Your task to perform on an android device: Open Youtube and go to the subscriptions tab Image 0: 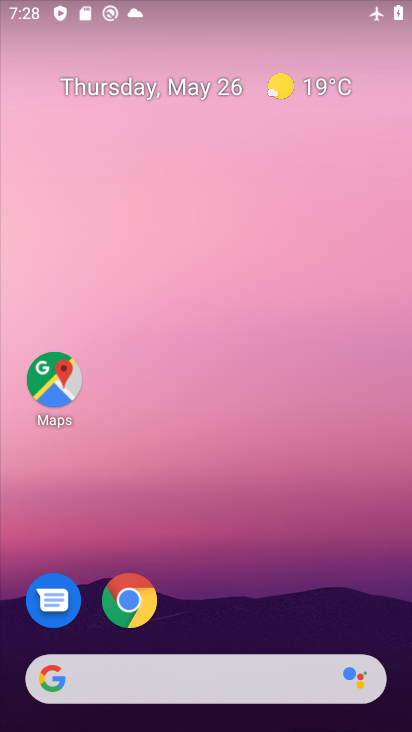
Step 0: press home button
Your task to perform on an android device: Open Youtube and go to the subscriptions tab Image 1: 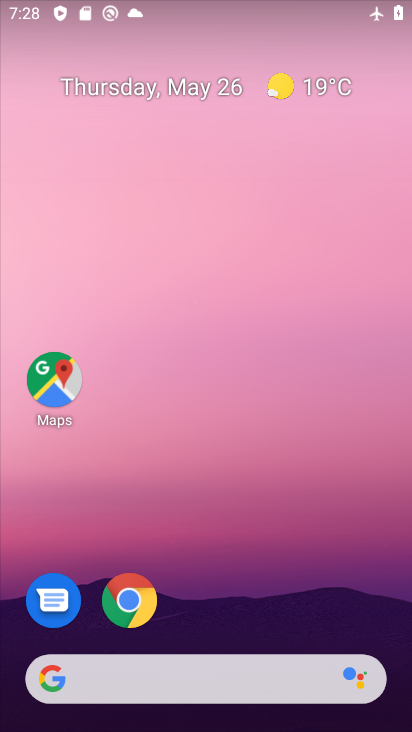
Step 1: drag from (281, 625) to (278, 169)
Your task to perform on an android device: Open Youtube and go to the subscriptions tab Image 2: 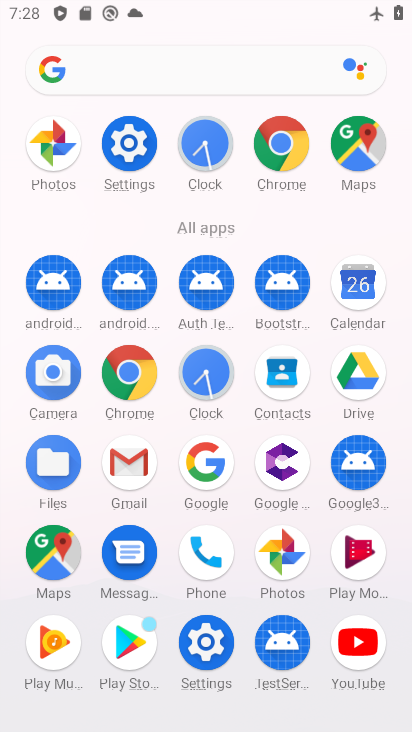
Step 2: click (346, 648)
Your task to perform on an android device: Open Youtube and go to the subscriptions tab Image 3: 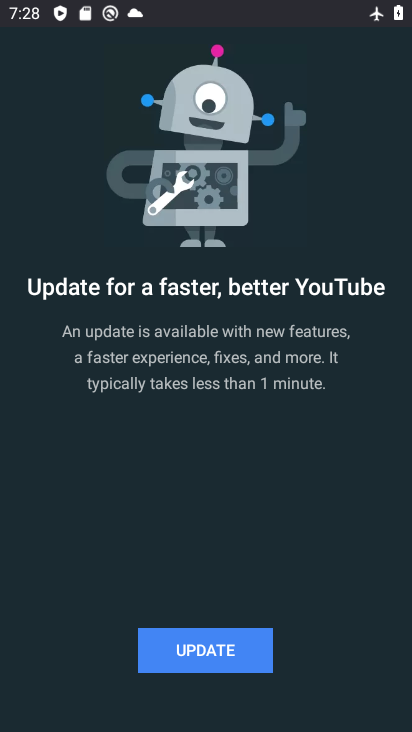
Step 3: click (242, 658)
Your task to perform on an android device: Open Youtube and go to the subscriptions tab Image 4: 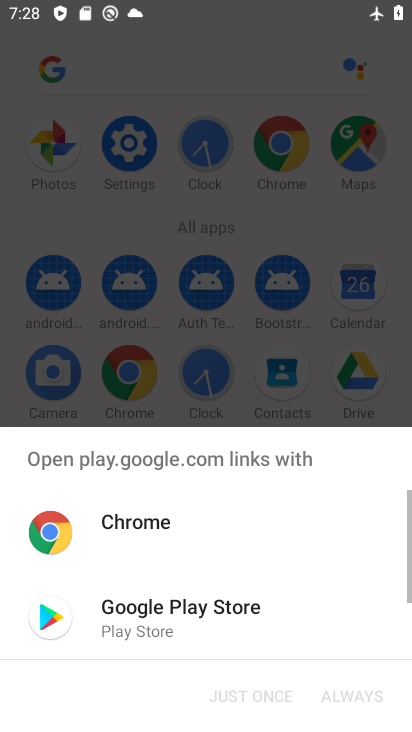
Step 4: click (201, 615)
Your task to perform on an android device: Open Youtube and go to the subscriptions tab Image 5: 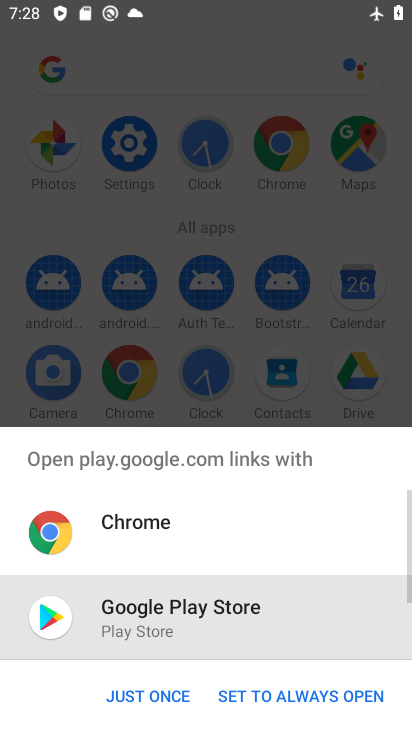
Step 5: click (133, 695)
Your task to perform on an android device: Open Youtube and go to the subscriptions tab Image 6: 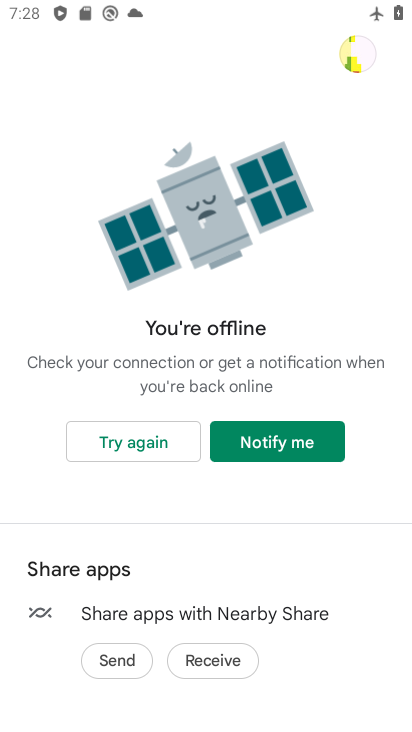
Step 6: click (148, 445)
Your task to perform on an android device: Open Youtube and go to the subscriptions tab Image 7: 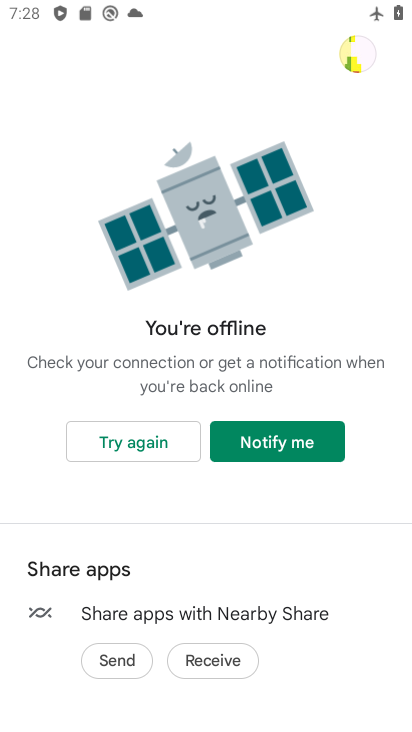
Step 7: click (148, 445)
Your task to perform on an android device: Open Youtube and go to the subscriptions tab Image 8: 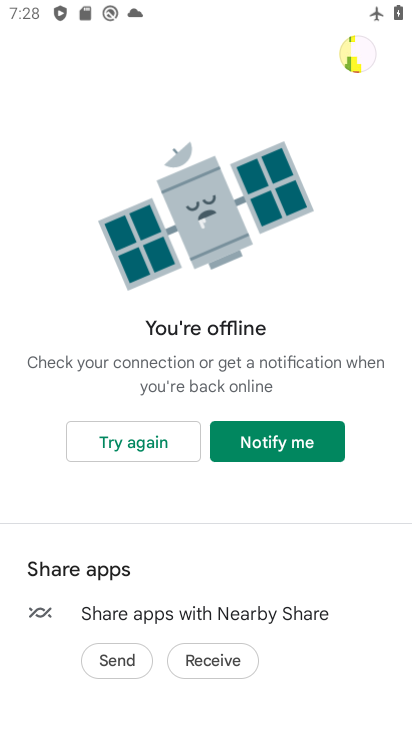
Step 8: click (152, 442)
Your task to perform on an android device: Open Youtube and go to the subscriptions tab Image 9: 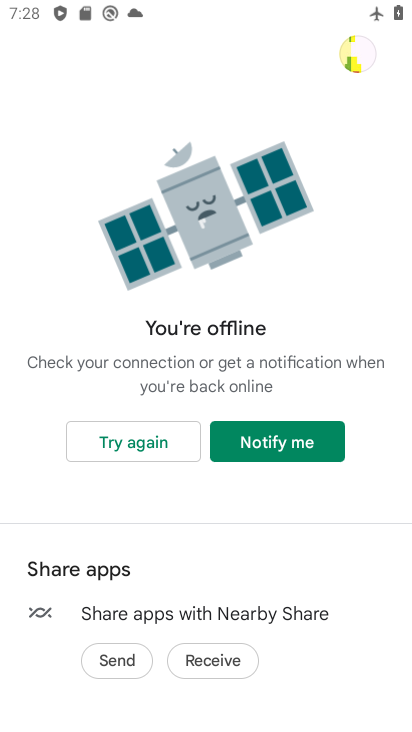
Step 9: drag from (167, 40) to (170, 277)
Your task to perform on an android device: Open Youtube and go to the subscriptions tab Image 10: 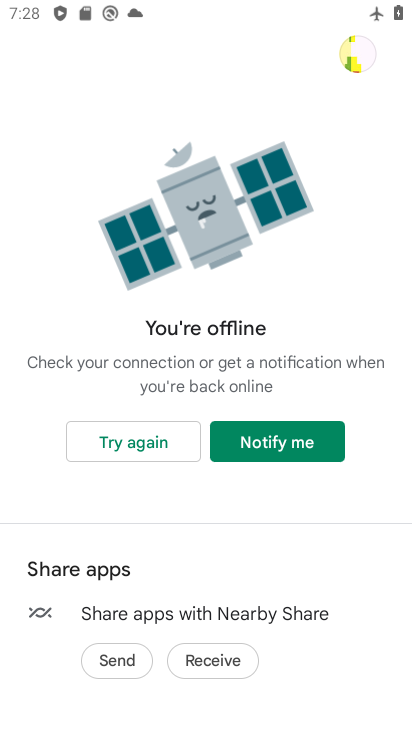
Step 10: drag from (231, 22) to (179, 311)
Your task to perform on an android device: Open Youtube and go to the subscriptions tab Image 11: 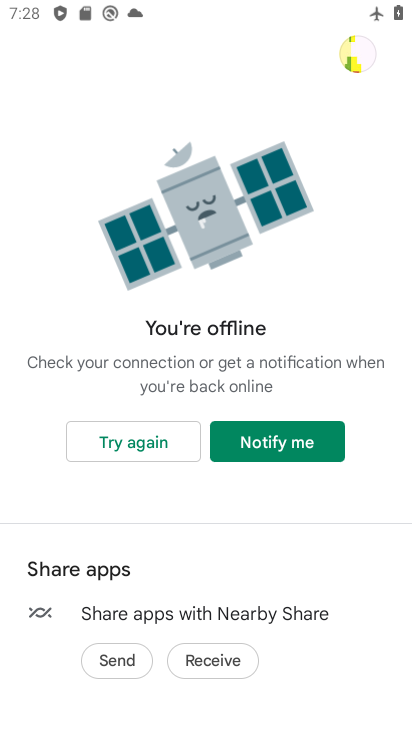
Step 11: drag from (216, 14) to (169, 394)
Your task to perform on an android device: Open Youtube and go to the subscriptions tab Image 12: 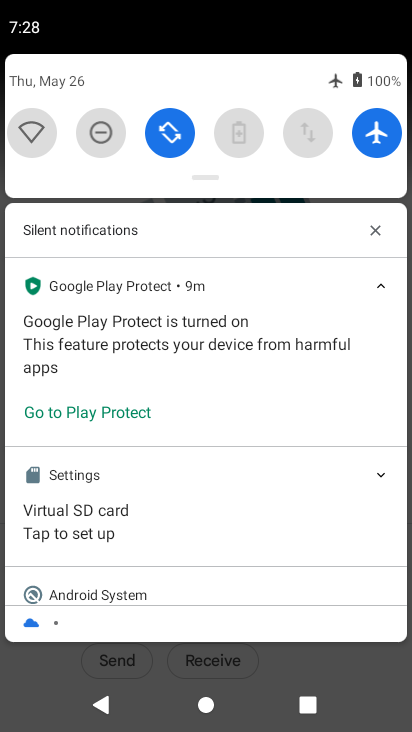
Step 12: click (31, 133)
Your task to perform on an android device: Open Youtube and go to the subscriptions tab Image 13: 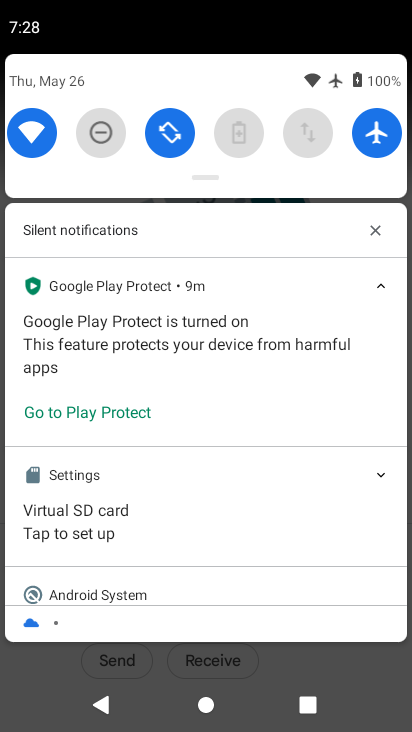
Step 13: drag from (239, 623) to (185, 36)
Your task to perform on an android device: Open Youtube and go to the subscriptions tab Image 14: 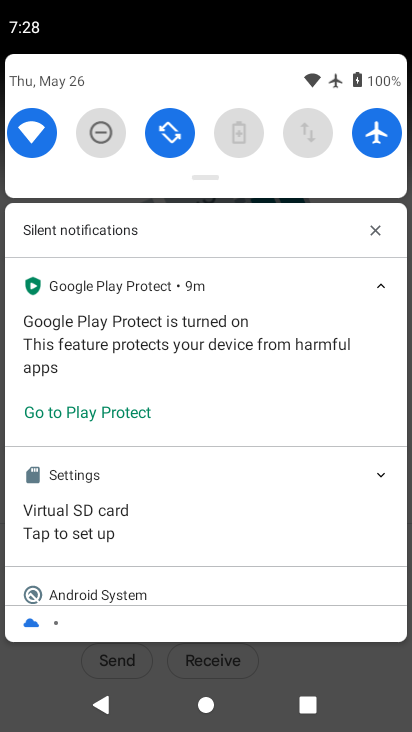
Step 14: drag from (250, 624) to (230, 175)
Your task to perform on an android device: Open Youtube and go to the subscriptions tab Image 15: 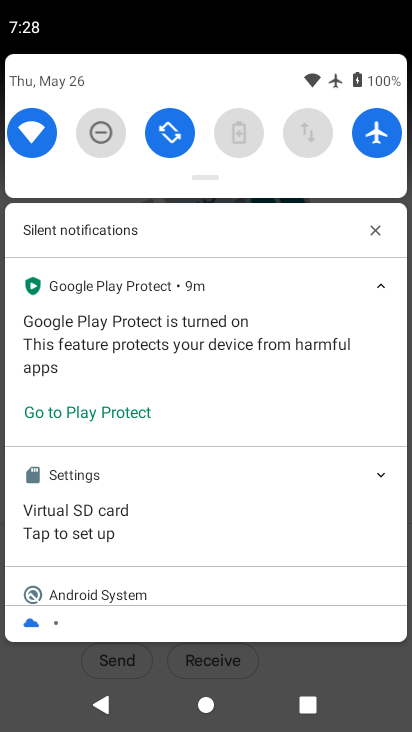
Step 15: click (257, 620)
Your task to perform on an android device: Open Youtube and go to the subscriptions tab Image 16: 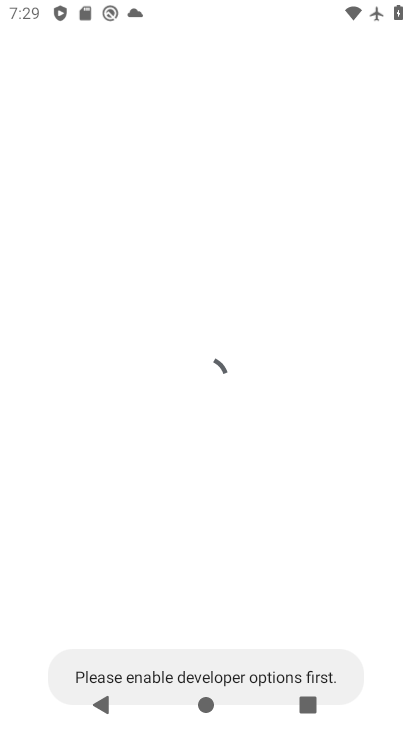
Step 16: click (184, 627)
Your task to perform on an android device: Open Youtube and go to the subscriptions tab Image 17: 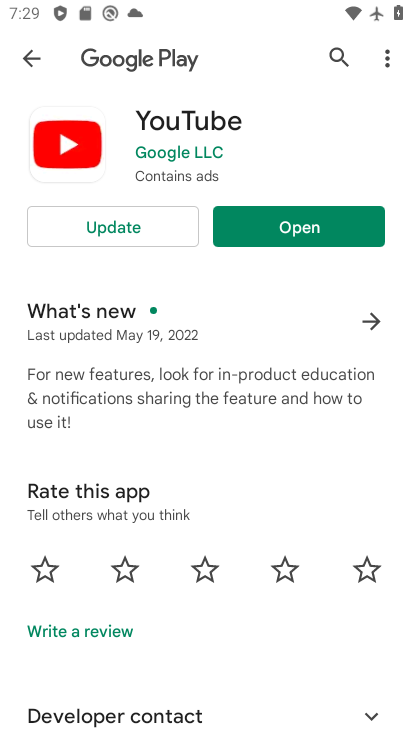
Step 17: click (127, 232)
Your task to perform on an android device: Open Youtube and go to the subscriptions tab Image 18: 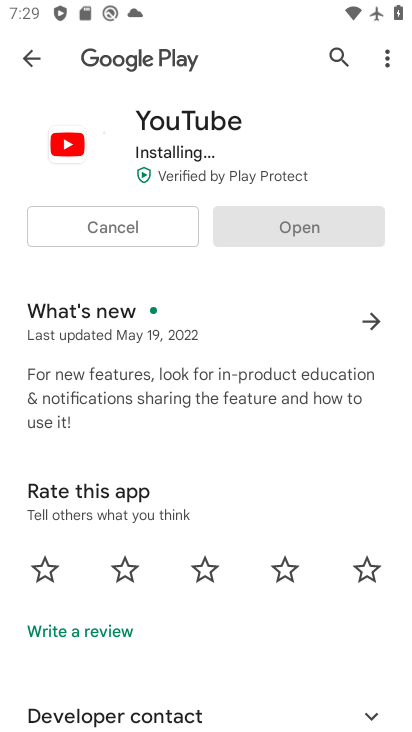
Step 18: click (272, 234)
Your task to perform on an android device: Open Youtube and go to the subscriptions tab Image 19: 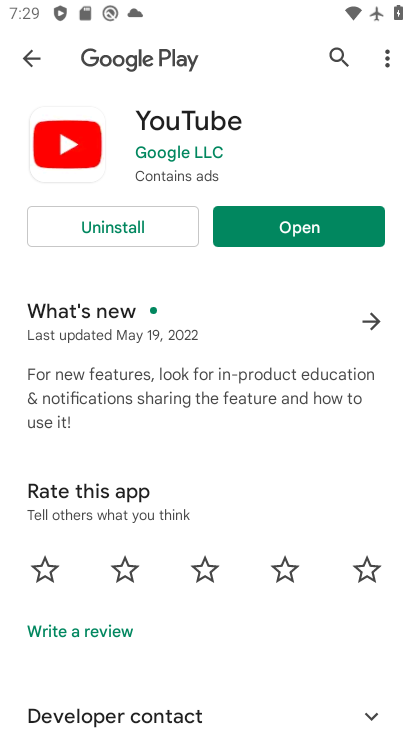
Step 19: click (267, 232)
Your task to perform on an android device: Open Youtube and go to the subscriptions tab Image 20: 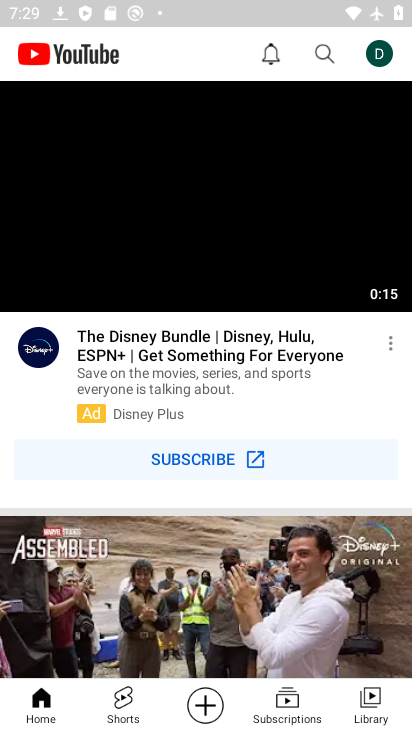
Step 20: click (293, 712)
Your task to perform on an android device: Open Youtube and go to the subscriptions tab Image 21: 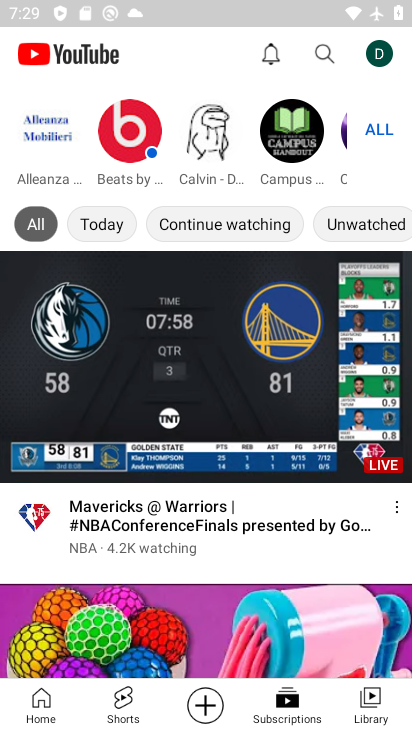
Step 21: task complete